Your task to perform on an android device: Open the calendar app, open the side menu, and click the "Day" option Image 0: 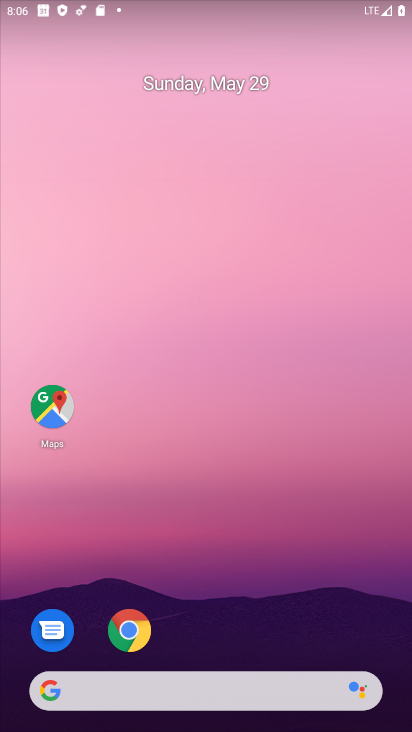
Step 0: drag from (229, 656) to (7, 30)
Your task to perform on an android device: Open the calendar app, open the side menu, and click the "Day" option Image 1: 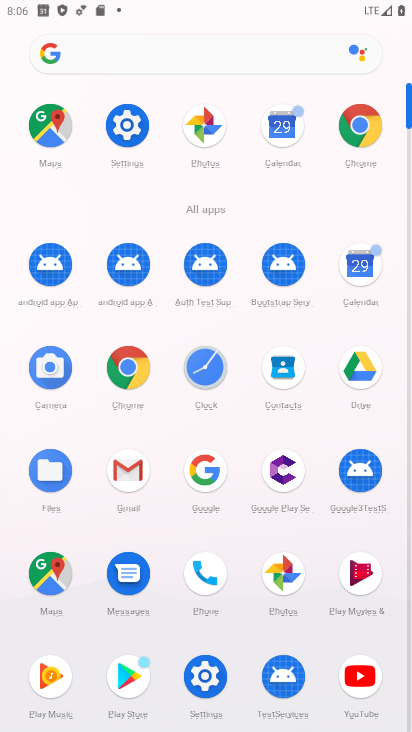
Step 1: click (269, 131)
Your task to perform on an android device: Open the calendar app, open the side menu, and click the "Day" option Image 2: 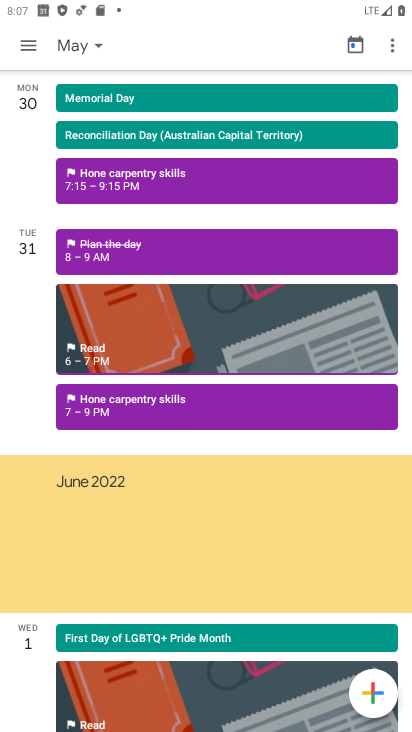
Step 2: click (22, 41)
Your task to perform on an android device: Open the calendar app, open the side menu, and click the "Day" option Image 3: 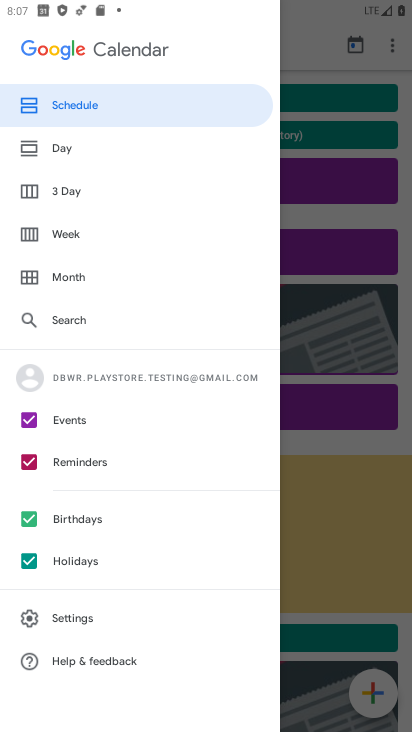
Step 3: click (67, 135)
Your task to perform on an android device: Open the calendar app, open the side menu, and click the "Day" option Image 4: 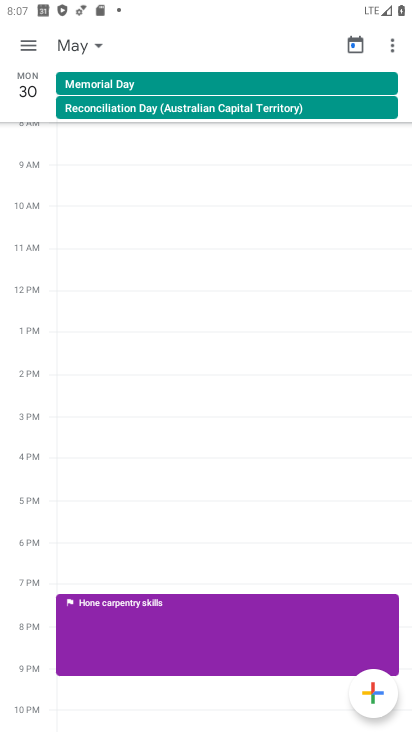
Step 4: task complete